Your task to perform on an android device: Open network settings Image 0: 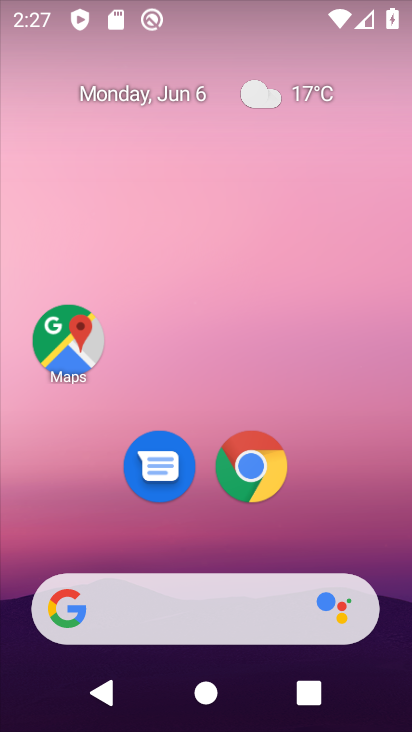
Step 0: press home button
Your task to perform on an android device: Open network settings Image 1: 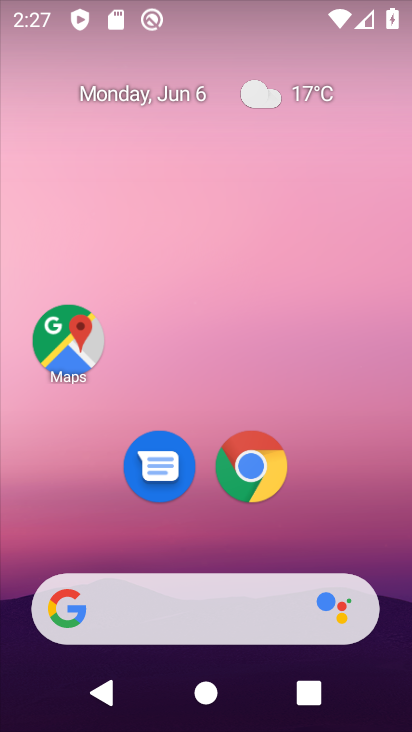
Step 1: drag from (339, 530) to (177, 22)
Your task to perform on an android device: Open network settings Image 2: 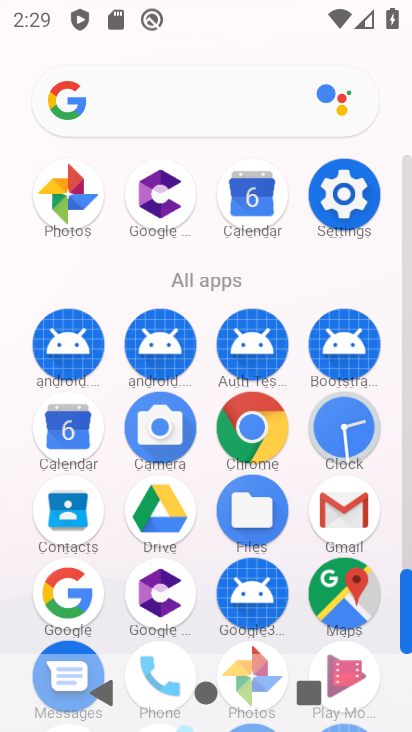
Step 2: click (366, 190)
Your task to perform on an android device: Open network settings Image 3: 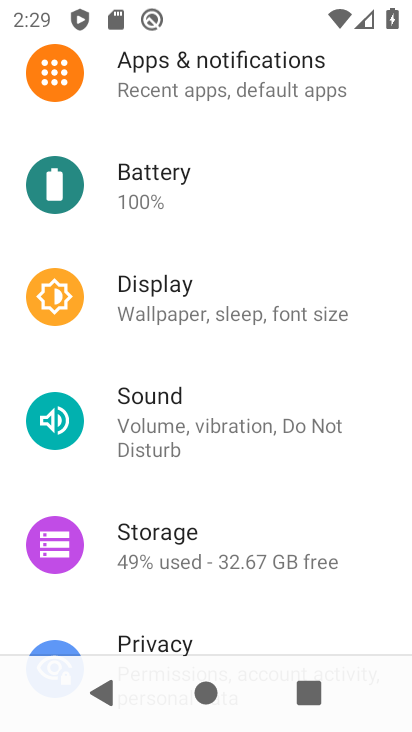
Step 3: drag from (183, 120) to (235, 524)
Your task to perform on an android device: Open network settings Image 4: 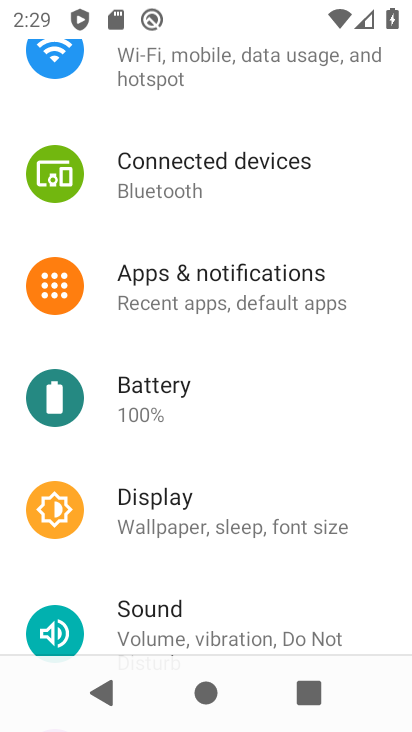
Step 4: click (210, 53)
Your task to perform on an android device: Open network settings Image 5: 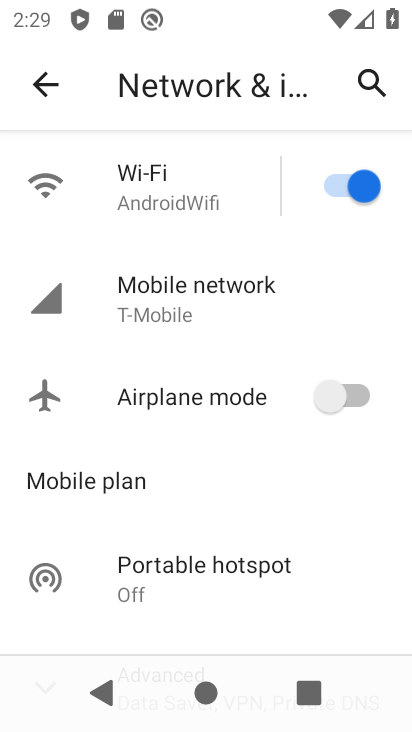
Step 5: task complete